Your task to perform on an android device: Open Chrome and go to settings Image 0: 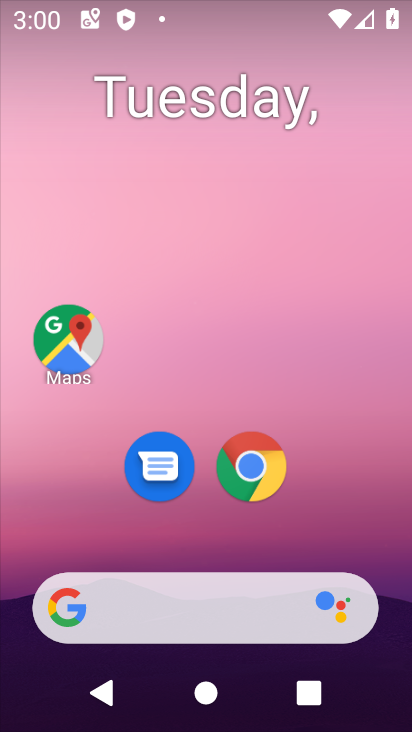
Step 0: click (240, 489)
Your task to perform on an android device: Open Chrome and go to settings Image 1: 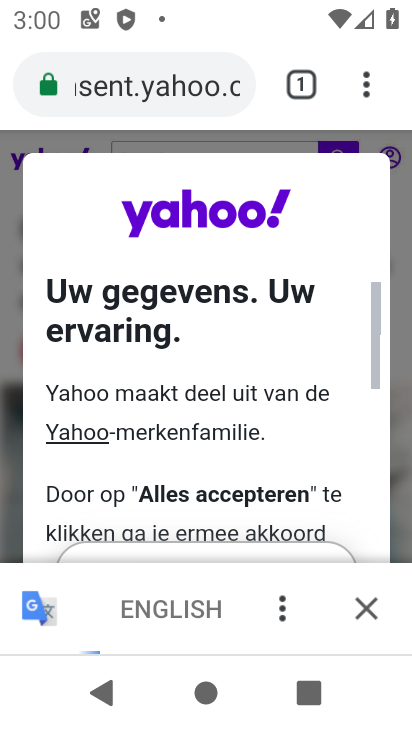
Step 1: task complete